Your task to perform on an android device: Open Google Image 0: 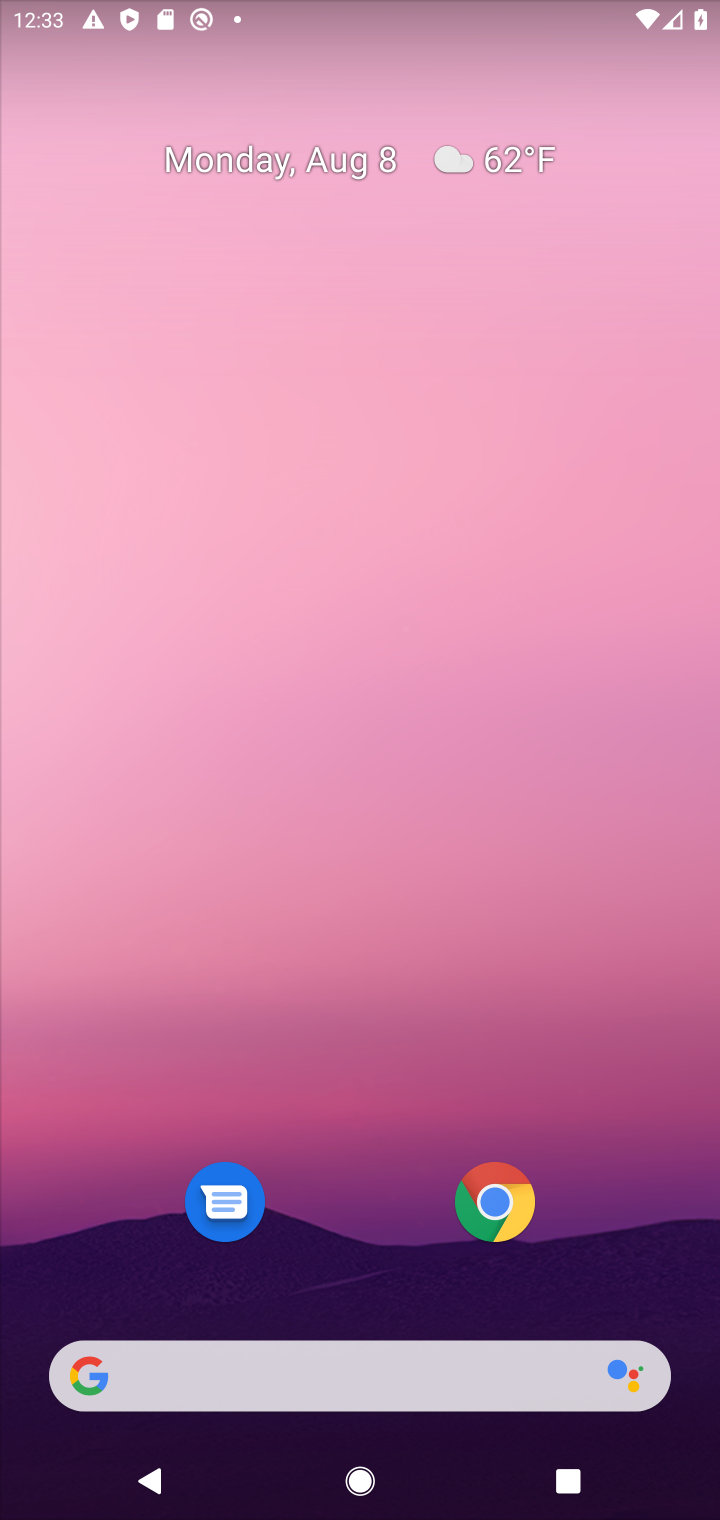
Step 0: click (353, 1370)
Your task to perform on an android device: Open Google Image 1: 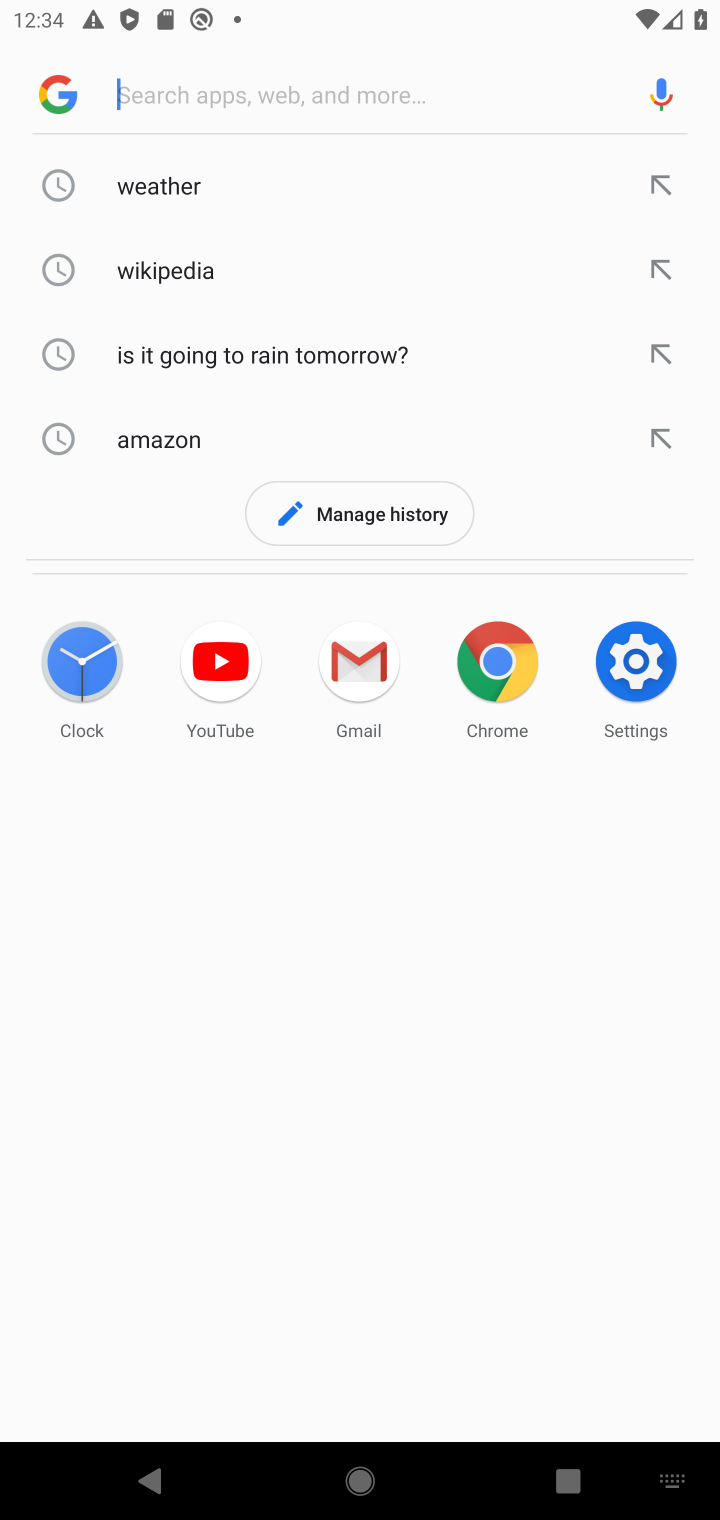
Step 1: task complete